Your task to perform on an android device: snooze an email in the gmail app Image 0: 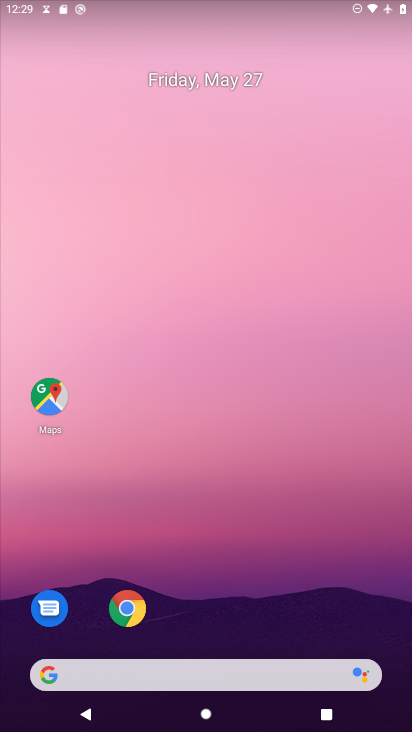
Step 0: press home button
Your task to perform on an android device: snooze an email in the gmail app Image 1: 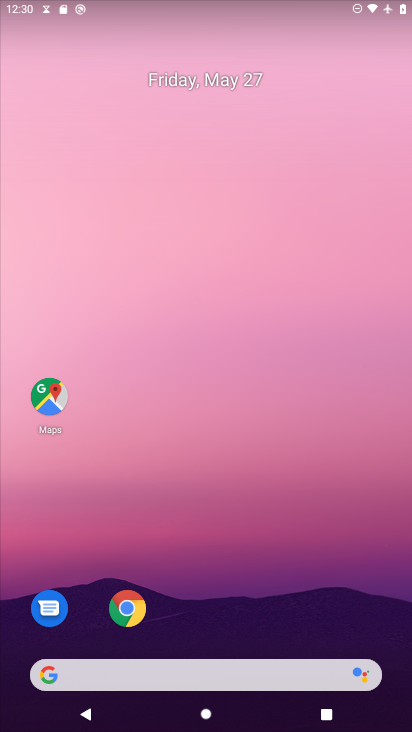
Step 1: drag from (179, 665) to (376, 158)
Your task to perform on an android device: snooze an email in the gmail app Image 2: 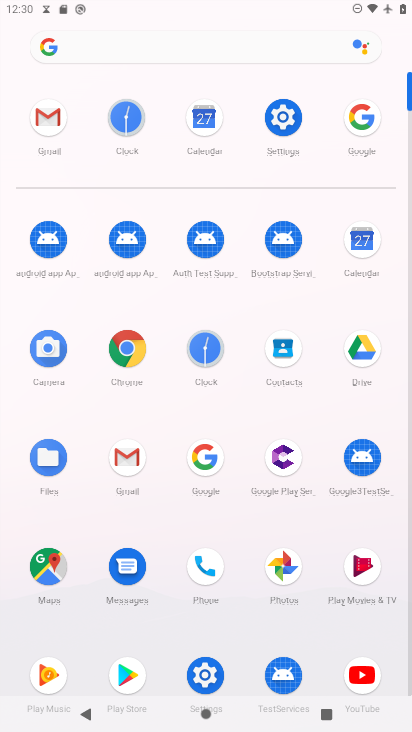
Step 2: click (42, 131)
Your task to perform on an android device: snooze an email in the gmail app Image 3: 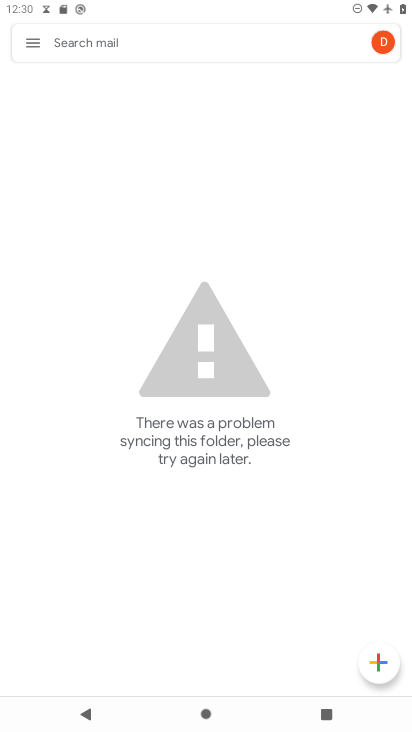
Step 3: task complete